Your task to perform on an android device: Open my contact list Image 0: 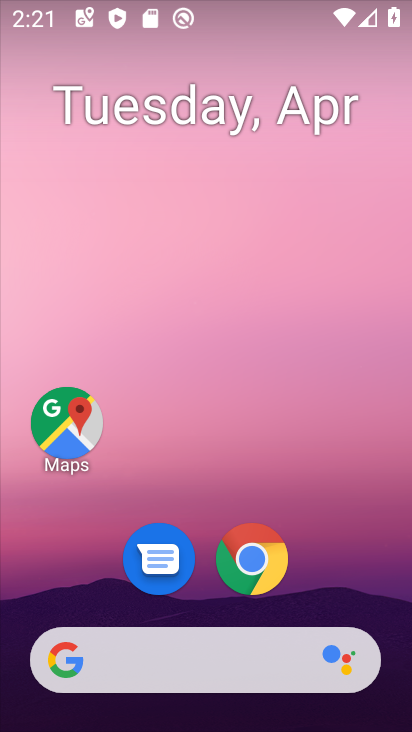
Step 0: drag from (204, 561) to (250, 118)
Your task to perform on an android device: Open my contact list Image 1: 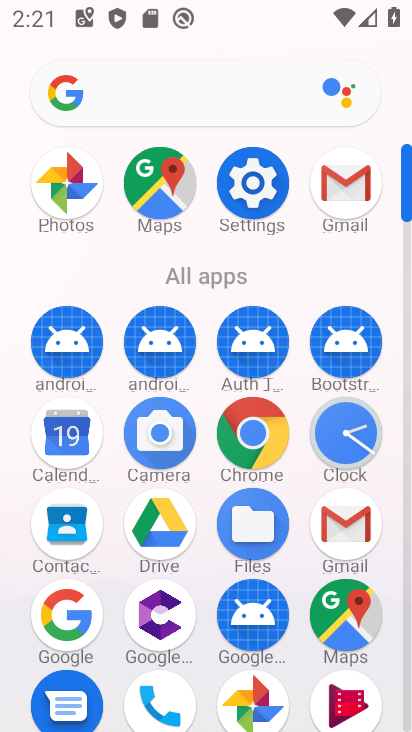
Step 1: click (67, 537)
Your task to perform on an android device: Open my contact list Image 2: 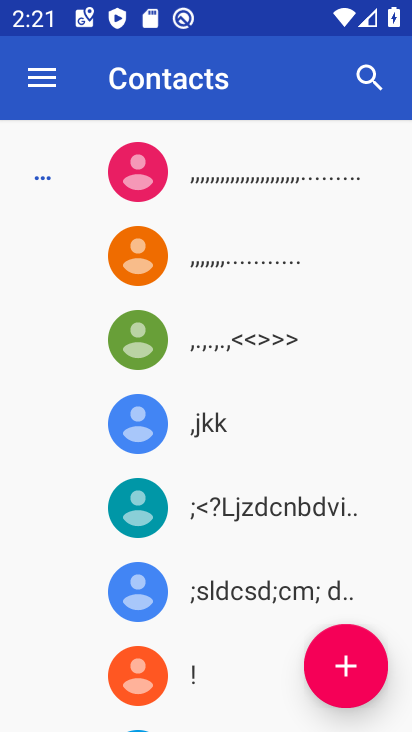
Step 2: task complete